Your task to perform on an android device: Open Yahoo.com Image 0: 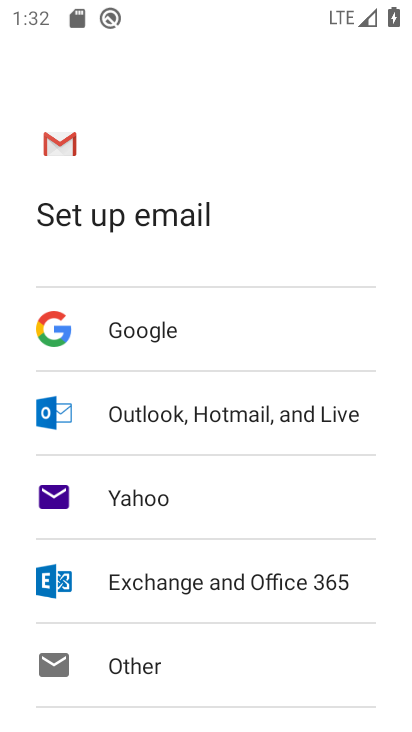
Step 0: press home button
Your task to perform on an android device: Open Yahoo.com Image 1: 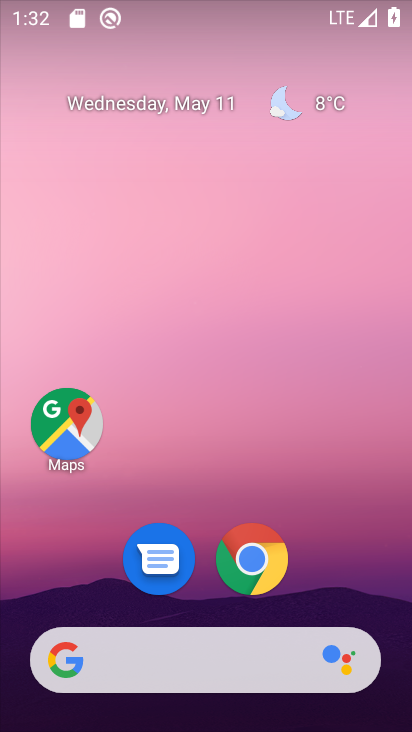
Step 1: click (247, 557)
Your task to perform on an android device: Open Yahoo.com Image 2: 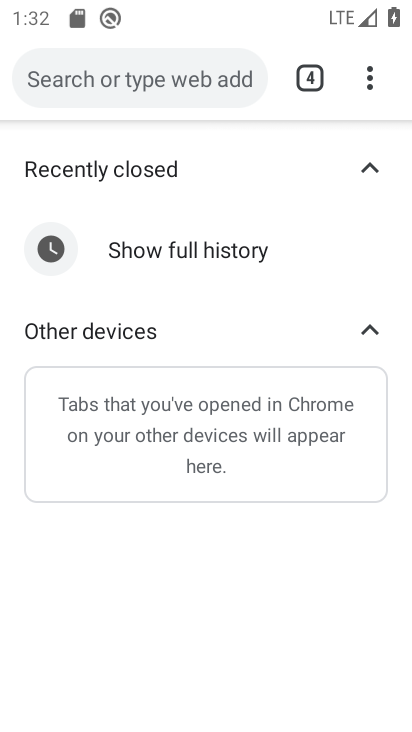
Step 2: click (370, 85)
Your task to perform on an android device: Open Yahoo.com Image 3: 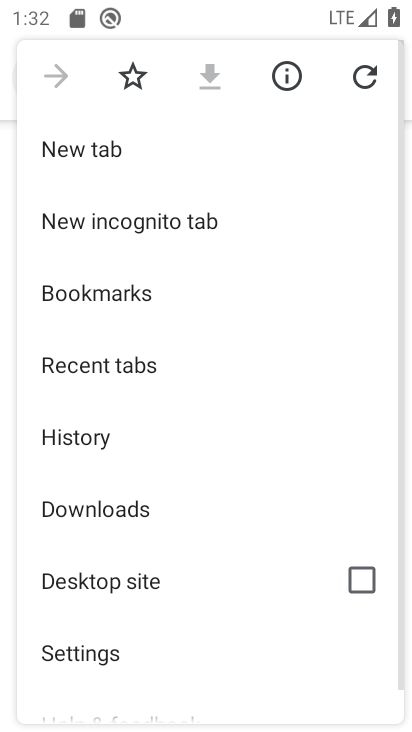
Step 3: click (82, 153)
Your task to perform on an android device: Open Yahoo.com Image 4: 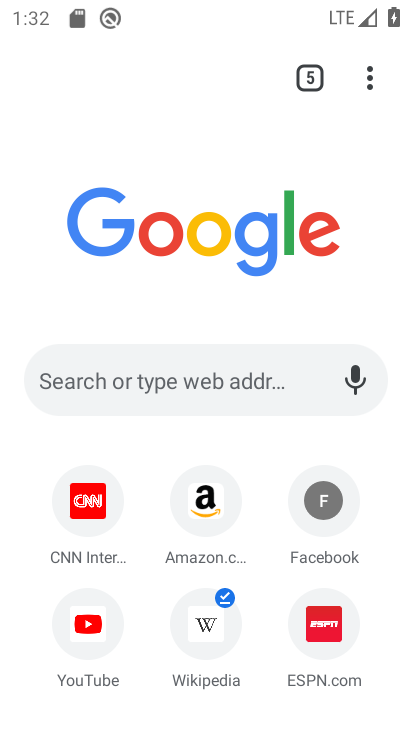
Step 4: click (212, 385)
Your task to perform on an android device: Open Yahoo.com Image 5: 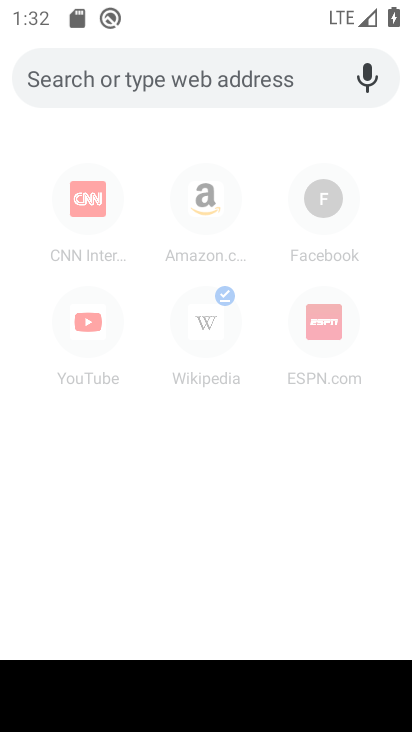
Step 5: type "Yahoo.com"
Your task to perform on an android device: Open Yahoo.com Image 6: 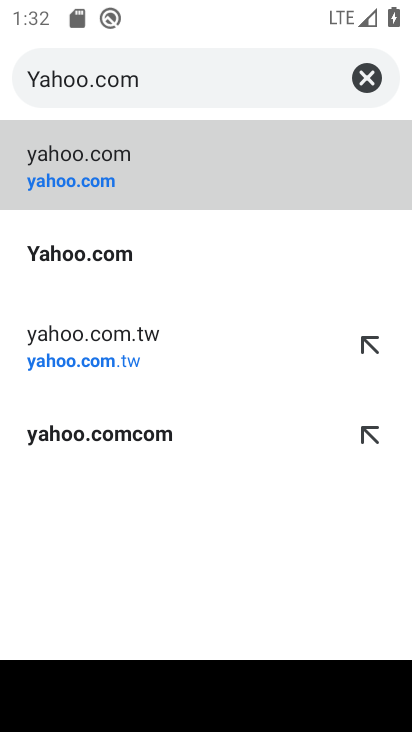
Step 6: click (94, 150)
Your task to perform on an android device: Open Yahoo.com Image 7: 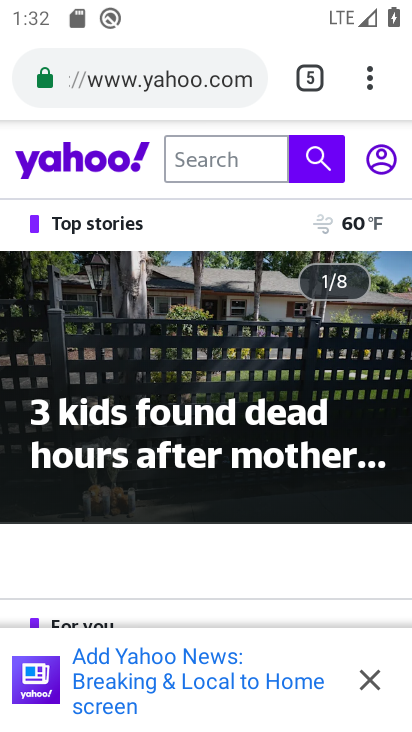
Step 7: task complete